Your task to perform on an android device: What's the weather today? Image 0: 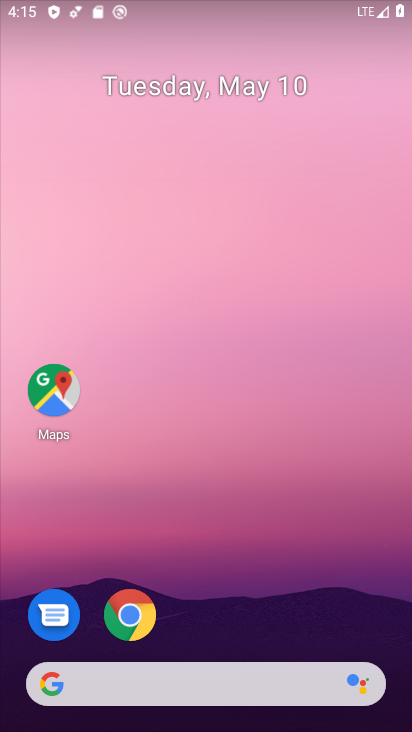
Step 0: drag from (256, 583) to (248, 11)
Your task to perform on an android device: What's the weather today? Image 1: 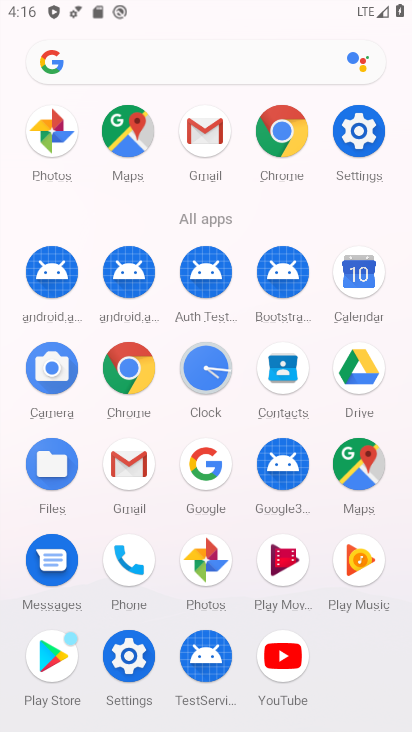
Step 1: click (102, 48)
Your task to perform on an android device: What's the weather today? Image 2: 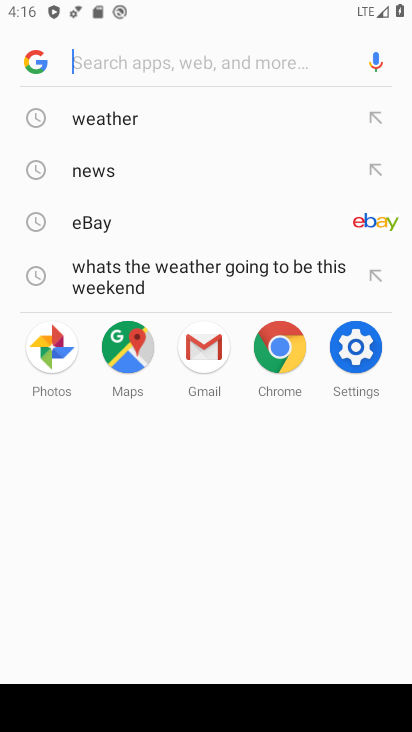
Step 2: type "what's the weather today"
Your task to perform on an android device: What's the weather today? Image 3: 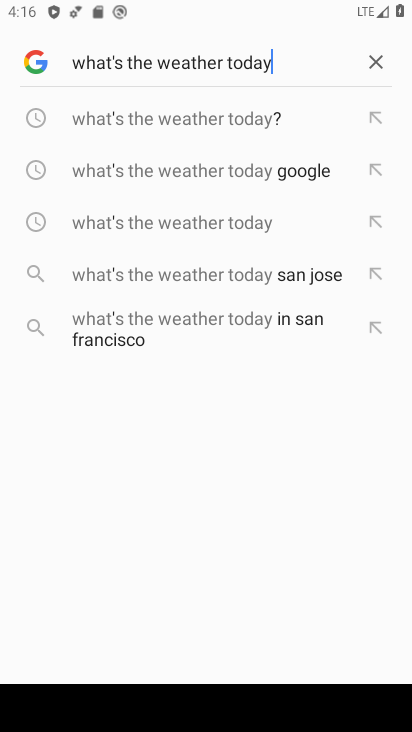
Step 3: click (169, 113)
Your task to perform on an android device: What's the weather today? Image 4: 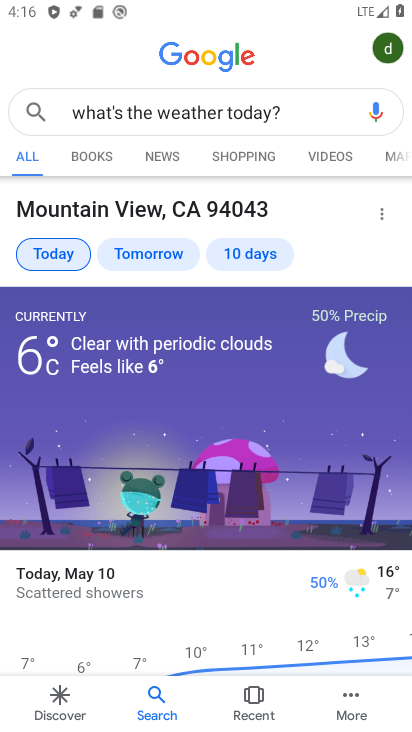
Step 4: task complete